Your task to perform on an android device: see creations saved in the google photos Image 0: 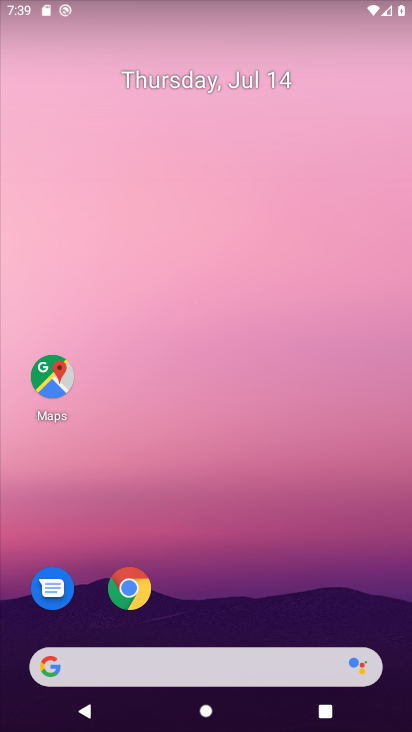
Step 0: drag from (347, 568) to (370, 131)
Your task to perform on an android device: see creations saved in the google photos Image 1: 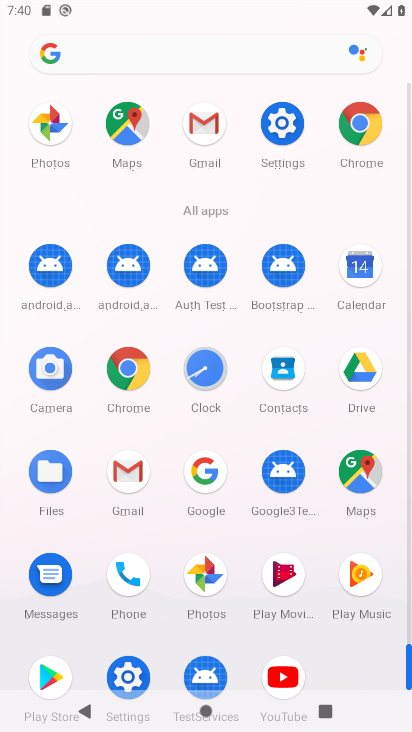
Step 1: click (200, 570)
Your task to perform on an android device: see creations saved in the google photos Image 2: 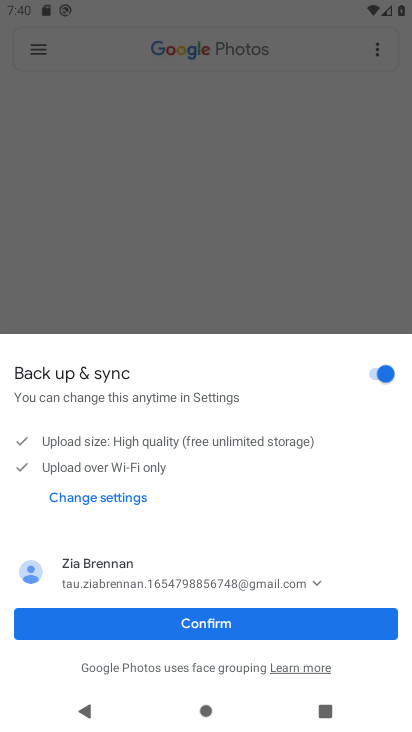
Step 2: click (182, 618)
Your task to perform on an android device: see creations saved in the google photos Image 3: 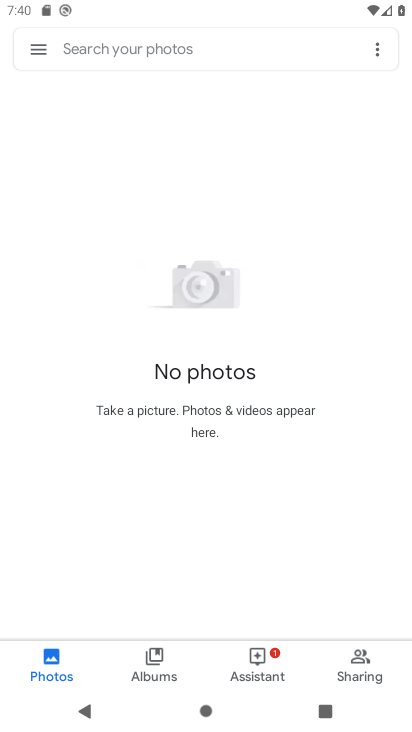
Step 3: click (199, 47)
Your task to perform on an android device: see creations saved in the google photos Image 4: 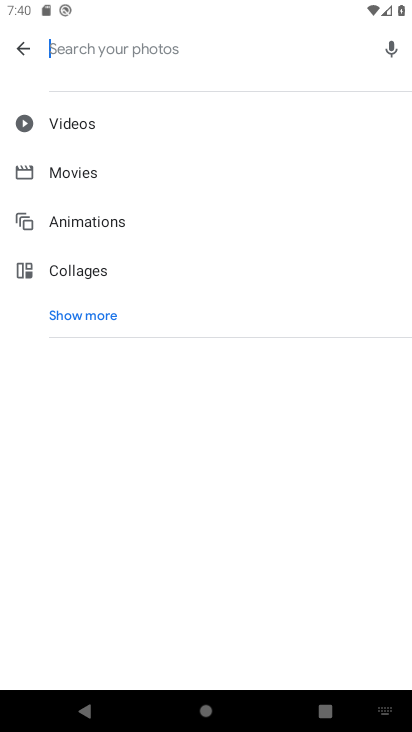
Step 4: click (111, 312)
Your task to perform on an android device: see creations saved in the google photos Image 5: 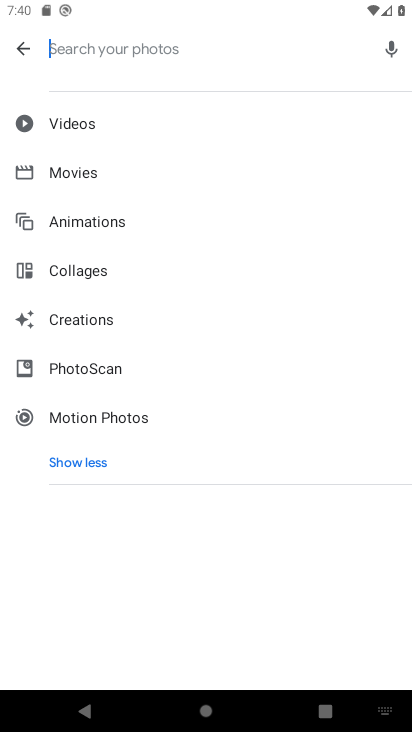
Step 5: click (89, 326)
Your task to perform on an android device: see creations saved in the google photos Image 6: 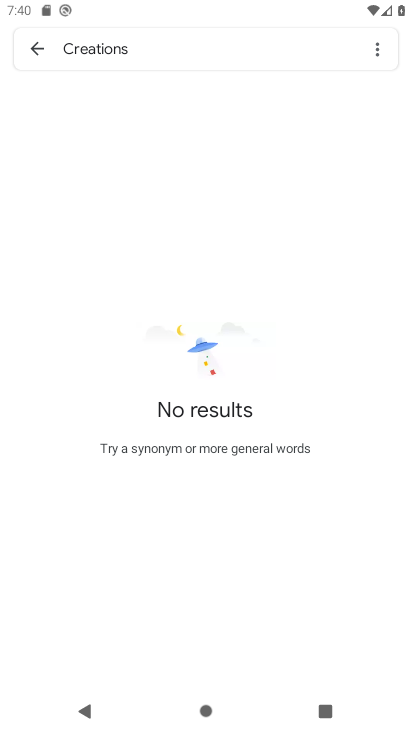
Step 6: task complete